Your task to perform on an android device: Go to sound settings Image 0: 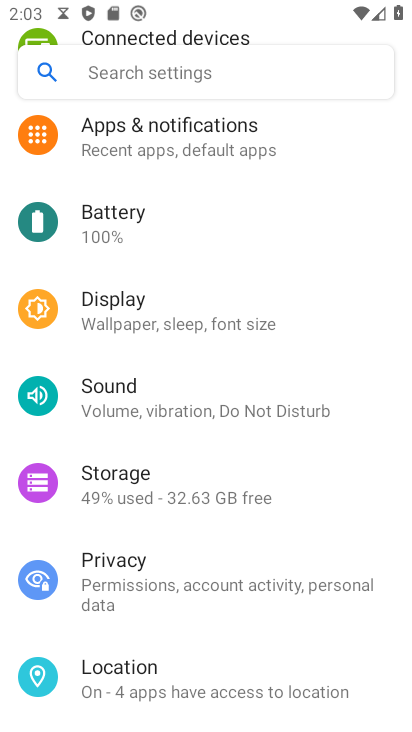
Step 0: click (146, 413)
Your task to perform on an android device: Go to sound settings Image 1: 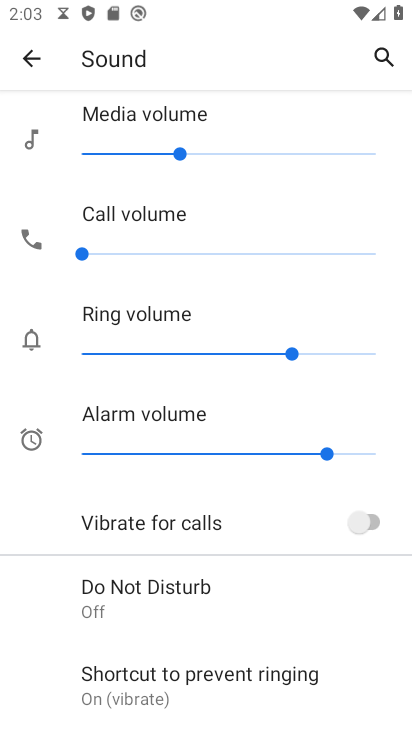
Step 1: task complete